Your task to perform on an android device: turn on javascript in the chrome app Image 0: 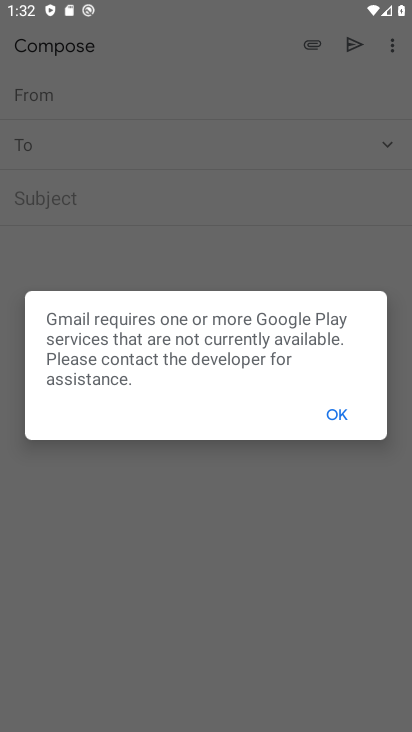
Step 0: press home button
Your task to perform on an android device: turn on javascript in the chrome app Image 1: 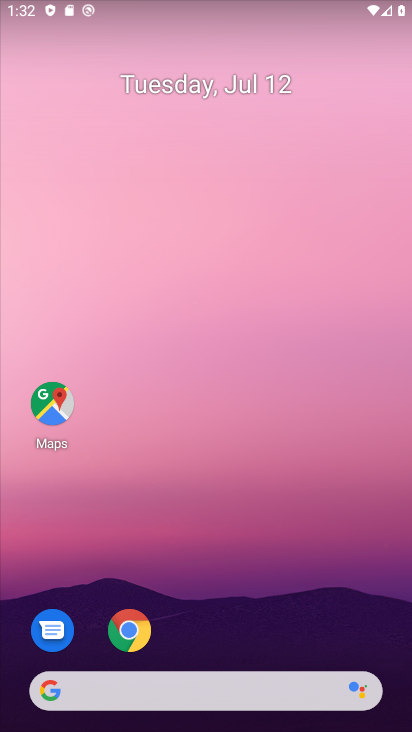
Step 1: click (121, 619)
Your task to perform on an android device: turn on javascript in the chrome app Image 2: 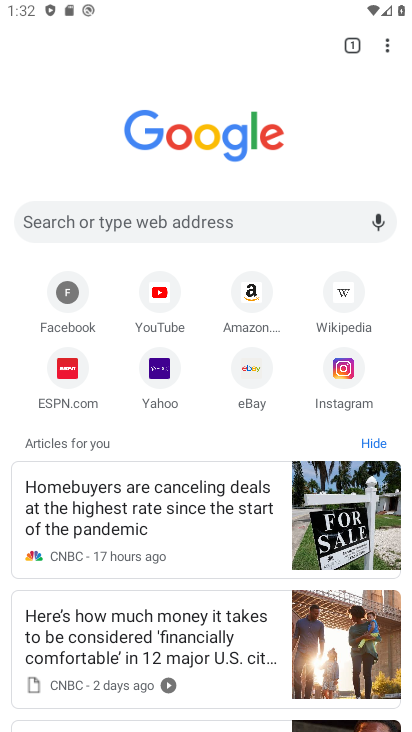
Step 2: click (385, 48)
Your task to perform on an android device: turn on javascript in the chrome app Image 3: 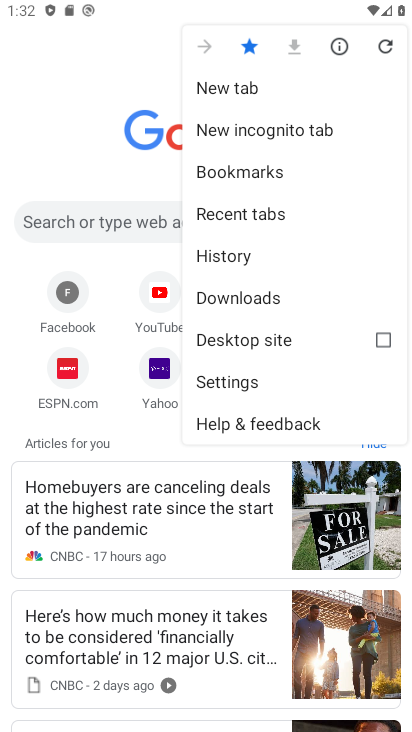
Step 3: click (223, 379)
Your task to perform on an android device: turn on javascript in the chrome app Image 4: 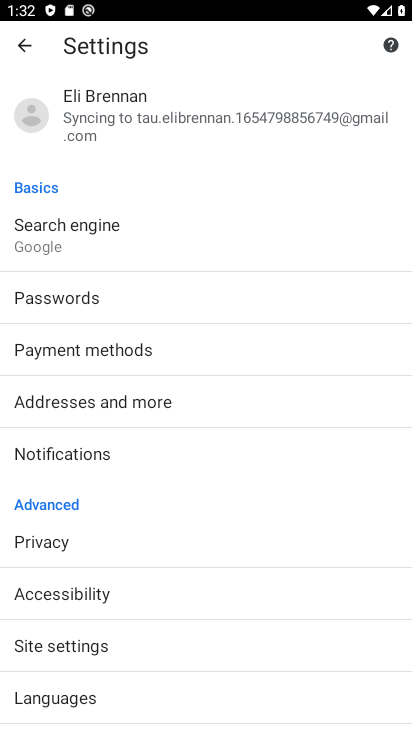
Step 4: drag from (207, 630) to (229, 246)
Your task to perform on an android device: turn on javascript in the chrome app Image 5: 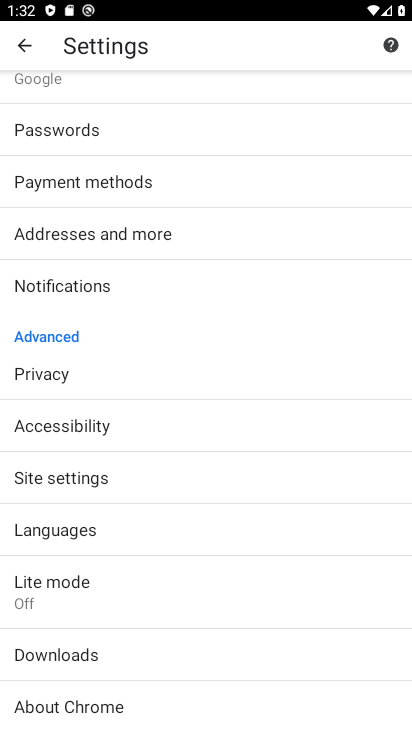
Step 5: click (56, 480)
Your task to perform on an android device: turn on javascript in the chrome app Image 6: 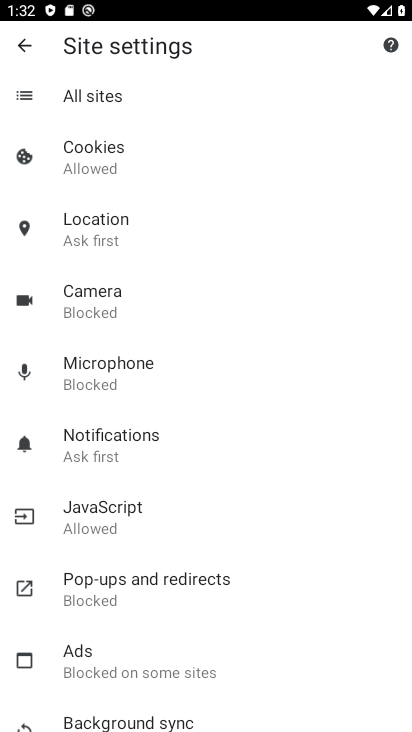
Step 6: click (130, 511)
Your task to perform on an android device: turn on javascript in the chrome app Image 7: 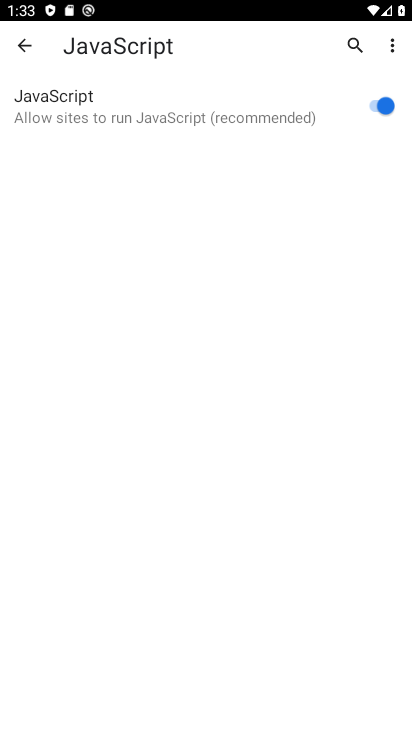
Step 7: task complete